Your task to perform on an android device: Open calendar and show me the third week of next month Image 0: 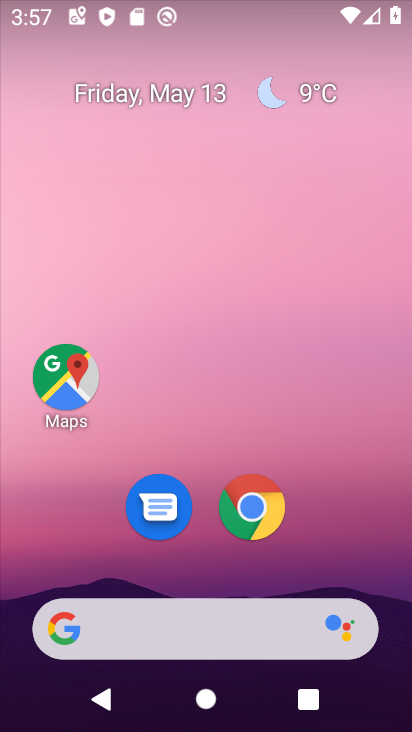
Step 0: drag from (324, 550) to (325, 6)
Your task to perform on an android device: Open calendar and show me the third week of next month Image 1: 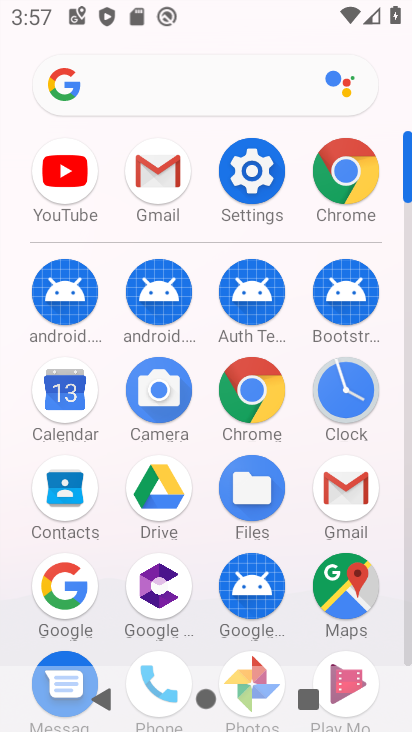
Step 1: drag from (399, 369) to (390, 136)
Your task to perform on an android device: Open calendar and show me the third week of next month Image 2: 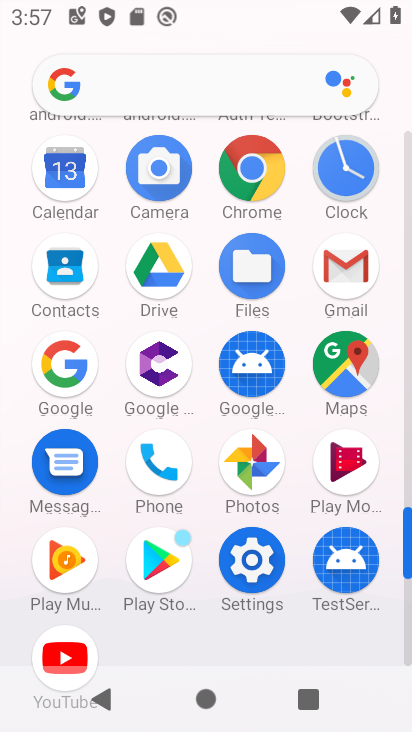
Step 2: click (49, 187)
Your task to perform on an android device: Open calendar and show me the third week of next month Image 3: 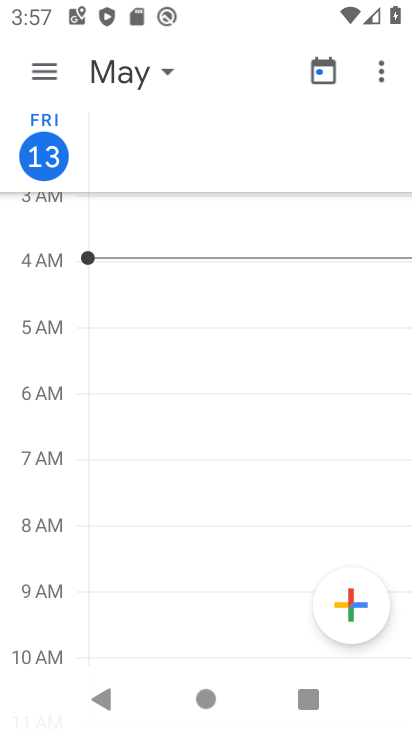
Step 3: click (122, 73)
Your task to perform on an android device: Open calendar and show me the third week of next month Image 4: 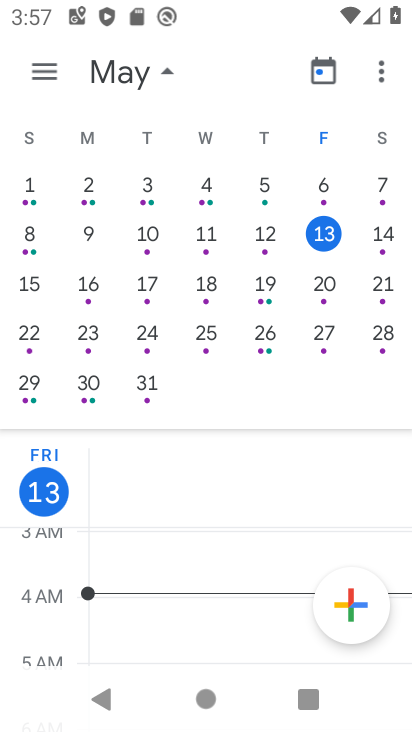
Step 4: drag from (343, 296) to (21, 331)
Your task to perform on an android device: Open calendar and show me the third week of next month Image 5: 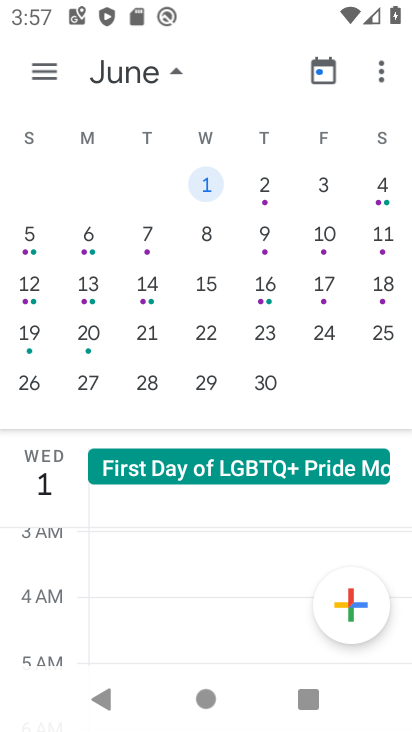
Step 5: click (148, 337)
Your task to perform on an android device: Open calendar and show me the third week of next month Image 6: 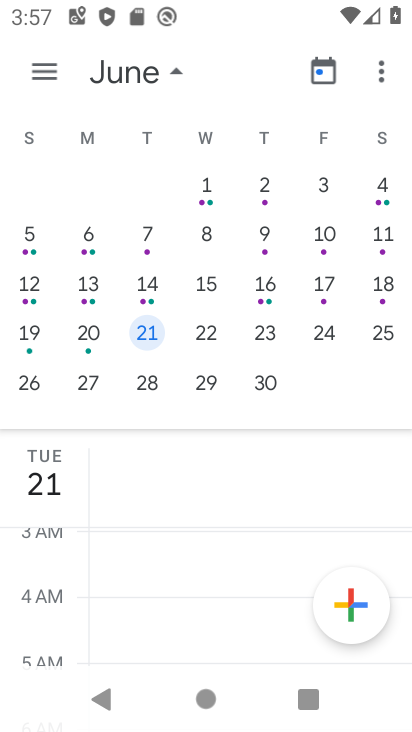
Step 6: task complete